Your task to perform on an android device: Open Google Chrome and open the bookmarks view Image 0: 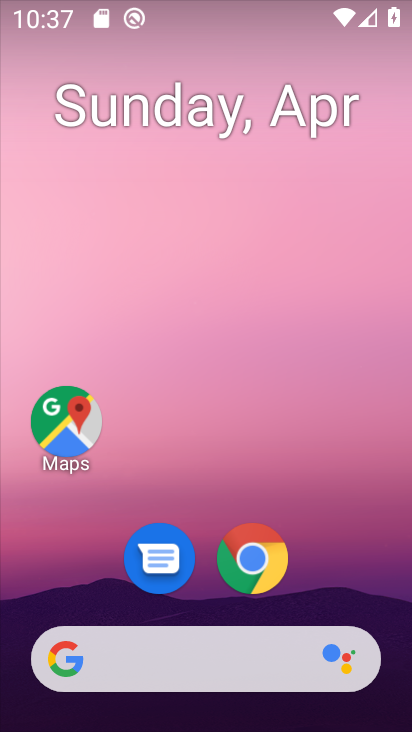
Step 0: drag from (218, 556) to (164, 111)
Your task to perform on an android device: Open Google Chrome and open the bookmarks view Image 1: 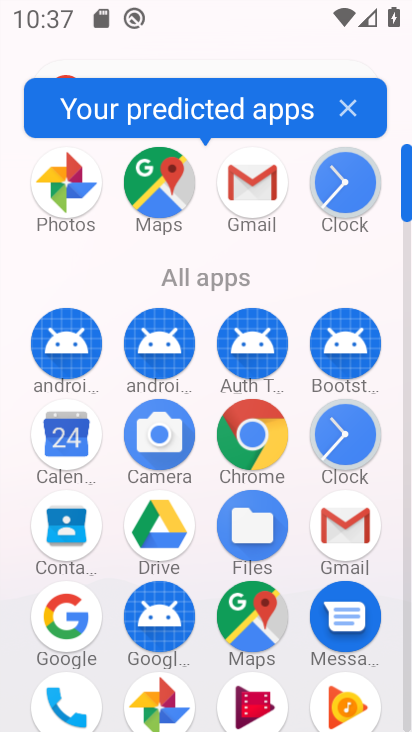
Step 1: click (253, 413)
Your task to perform on an android device: Open Google Chrome and open the bookmarks view Image 2: 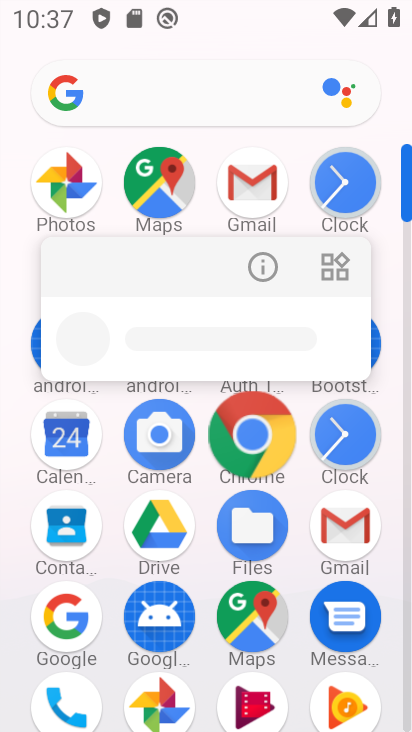
Step 2: click (249, 442)
Your task to perform on an android device: Open Google Chrome and open the bookmarks view Image 3: 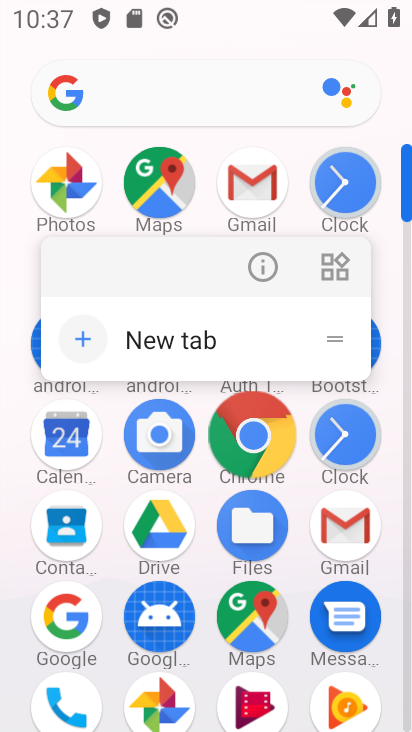
Step 3: click (247, 439)
Your task to perform on an android device: Open Google Chrome and open the bookmarks view Image 4: 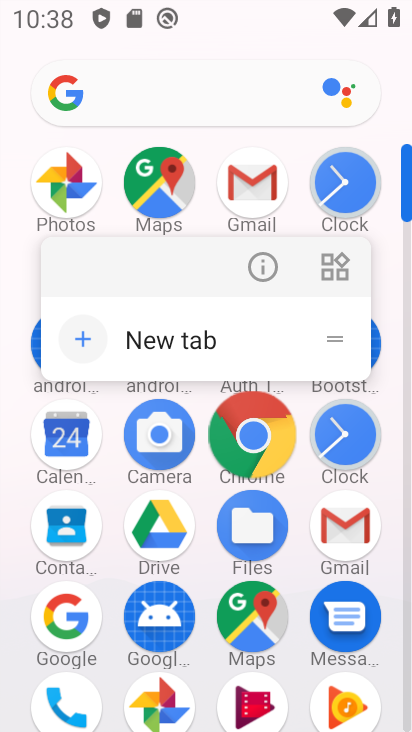
Step 4: click (249, 424)
Your task to perform on an android device: Open Google Chrome and open the bookmarks view Image 5: 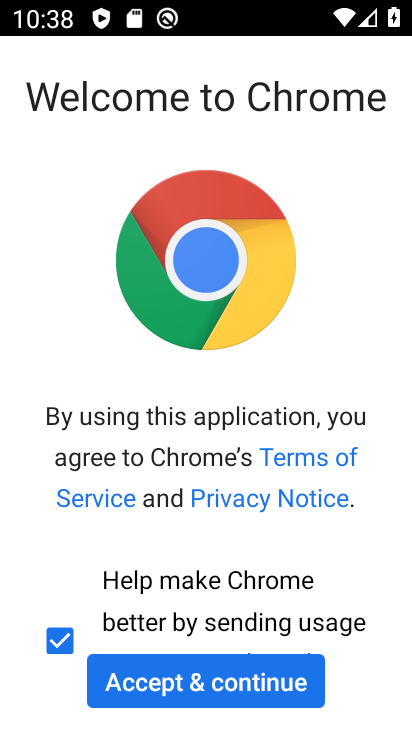
Step 5: click (215, 689)
Your task to perform on an android device: Open Google Chrome and open the bookmarks view Image 6: 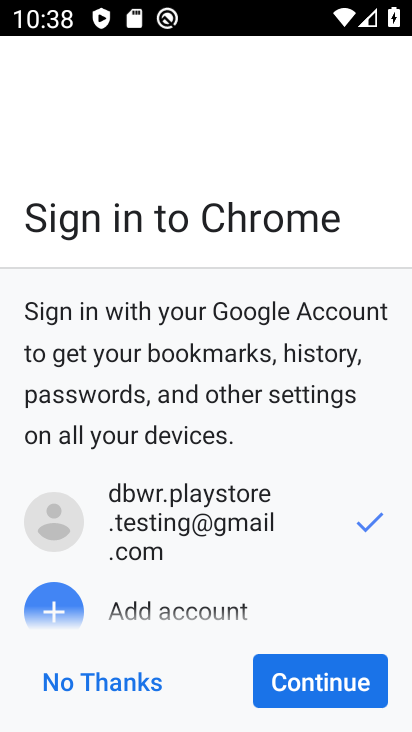
Step 6: click (230, 671)
Your task to perform on an android device: Open Google Chrome and open the bookmarks view Image 7: 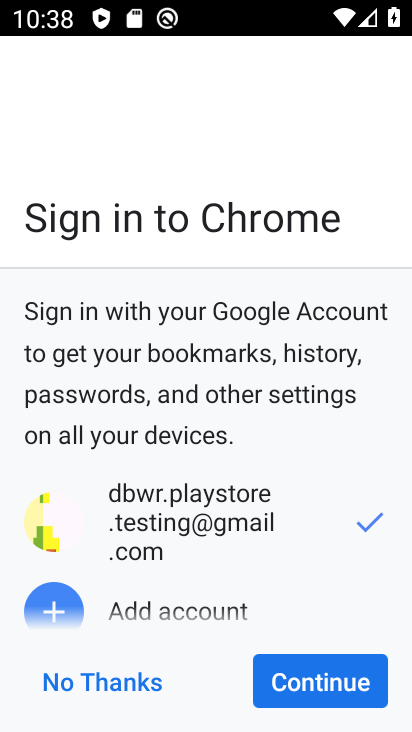
Step 7: click (310, 683)
Your task to perform on an android device: Open Google Chrome and open the bookmarks view Image 8: 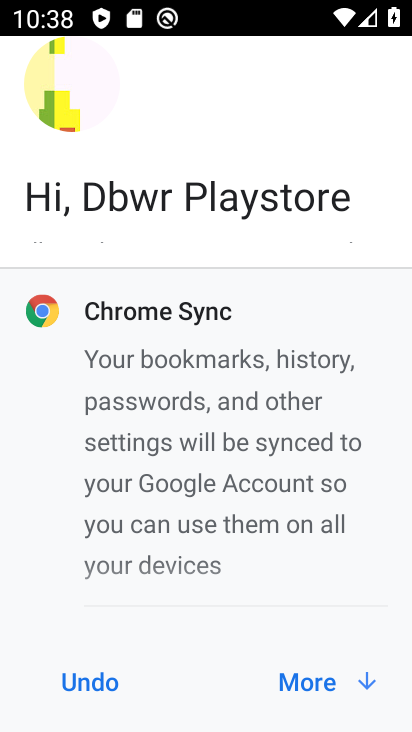
Step 8: click (311, 677)
Your task to perform on an android device: Open Google Chrome and open the bookmarks view Image 9: 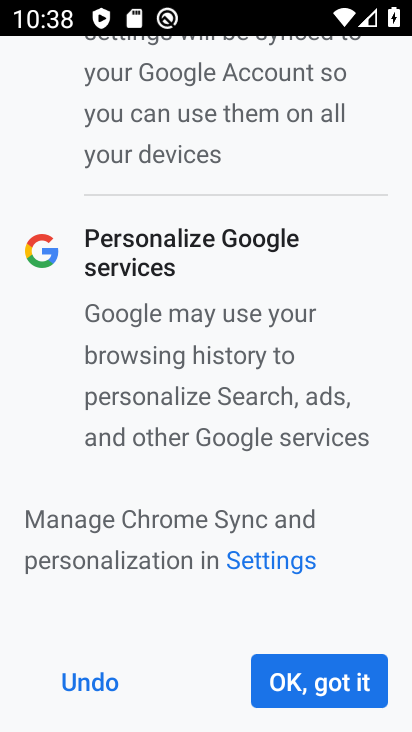
Step 9: click (295, 685)
Your task to perform on an android device: Open Google Chrome and open the bookmarks view Image 10: 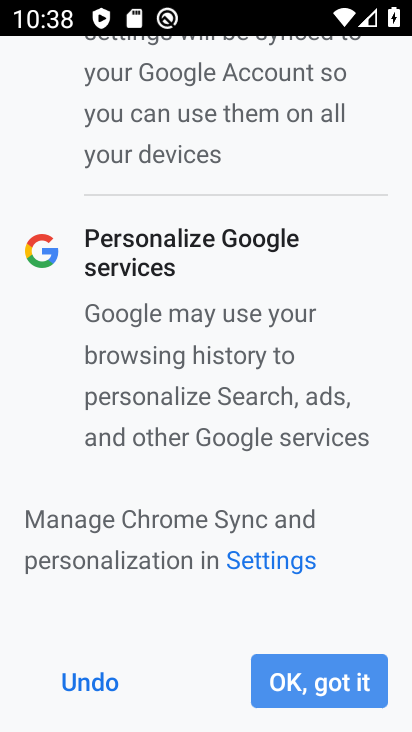
Step 10: click (292, 679)
Your task to perform on an android device: Open Google Chrome and open the bookmarks view Image 11: 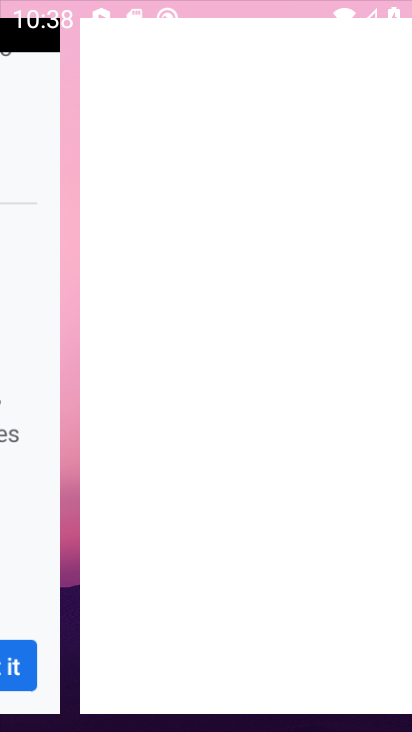
Step 11: click (292, 684)
Your task to perform on an android device: Open Google Chrome and open the bookmarks view Image 12: 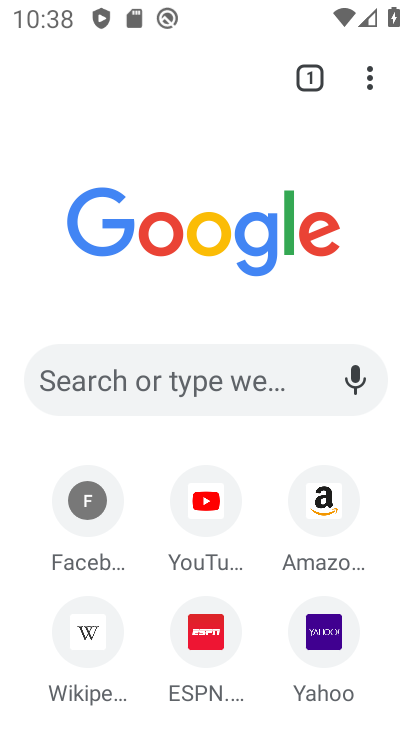
Step 12: drag from (361, 77) to (85, 294)
Your task to perform on an android device: Open Google Chrome and open the bookmarks view Image 13: 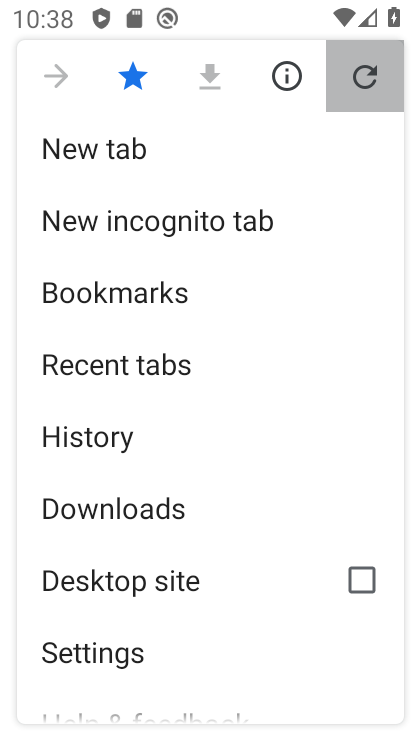
Step 13: click (84, 286)
Your task to perform on an android device: Open Google Chrome and open the bookmarks view Image 14: 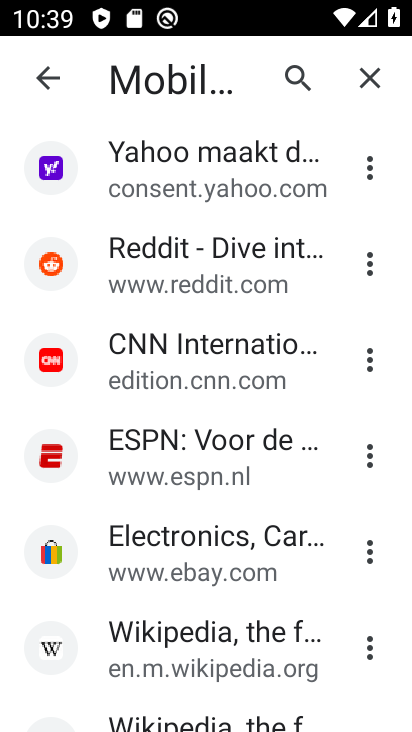
Step 14: click (180, 383)
Your task to perform on an android device: Open Google Chrome and open the bookmarks view Image 15: 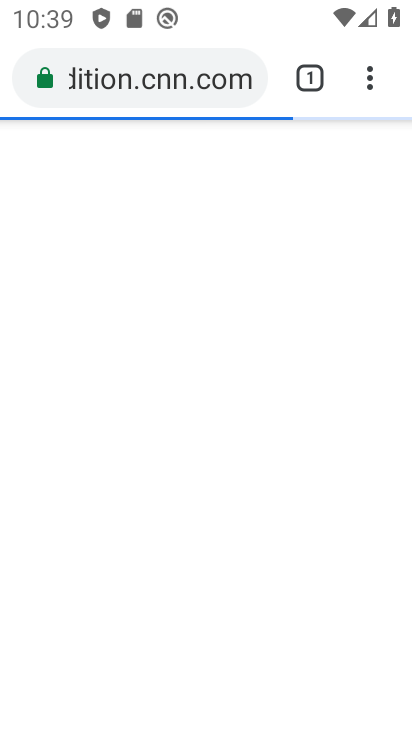
Step 15: task complete